Your task to perform on an android device: What's the weather going to be this weekend? Image 0: 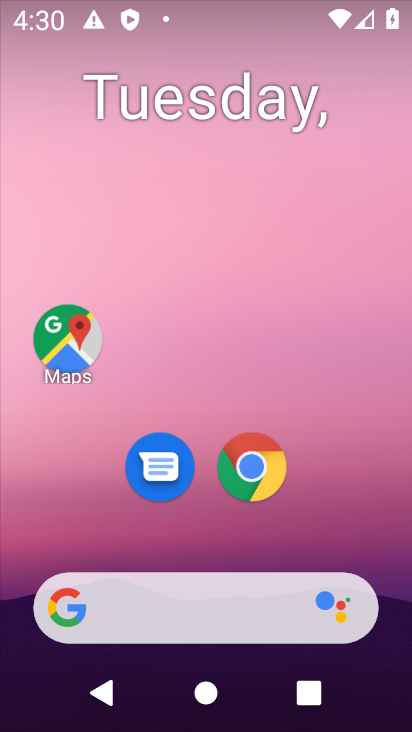
Step 0: drag from (155, 524) to (181, 7)
Your task to perform on an android device: What's the weather going to be this weekend? Image 1: 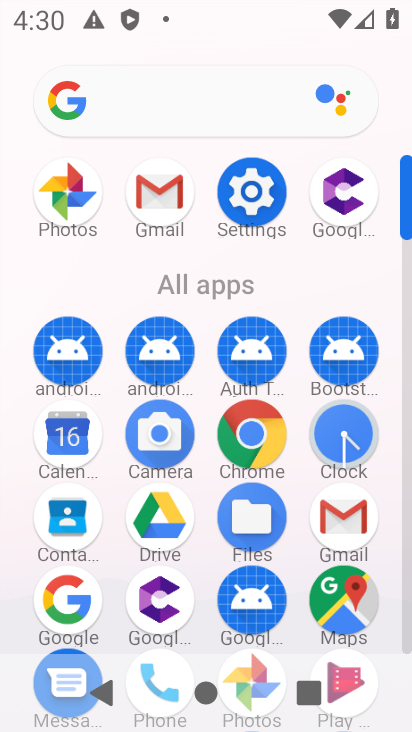
Step 1: click (61, 609)
Your task to perform on an android device: What's the weather going to be this weekend? Image 2: 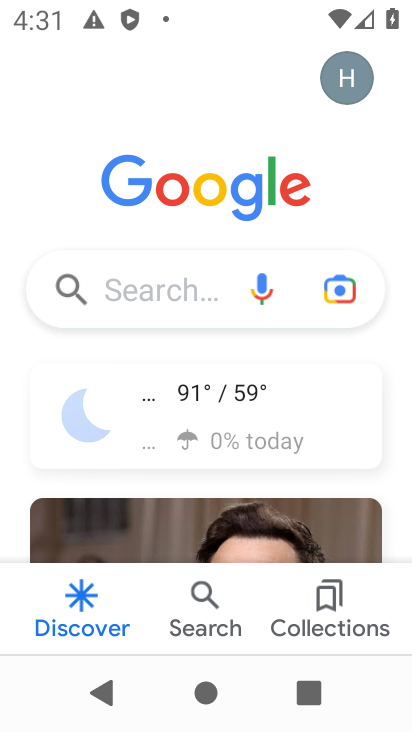
Step 2: click (211, 449)
Your task to perform on an android device: What's the weather going to be this weekend? Image 3: 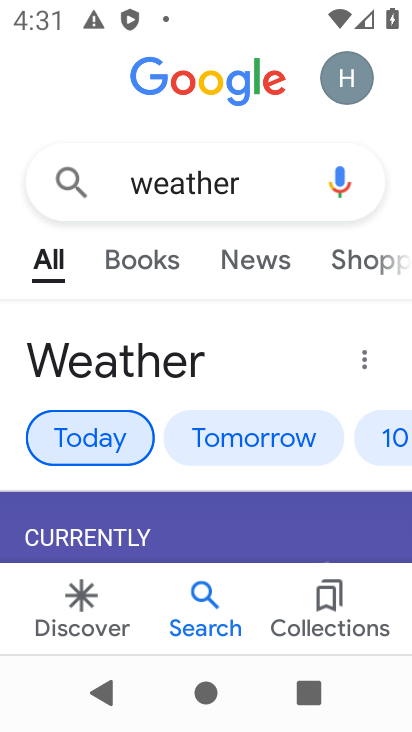
Step 3: click (371, 437)
Your task to perform on an android device: What's the weather going to be this weekend? Image 4: 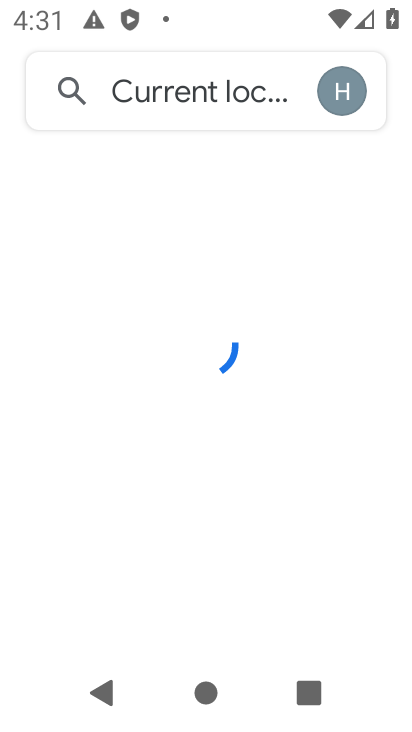
Step 4: click (386, 442)
Your task to perform on an android device: What's the weather going to be this weekend? Image 5: 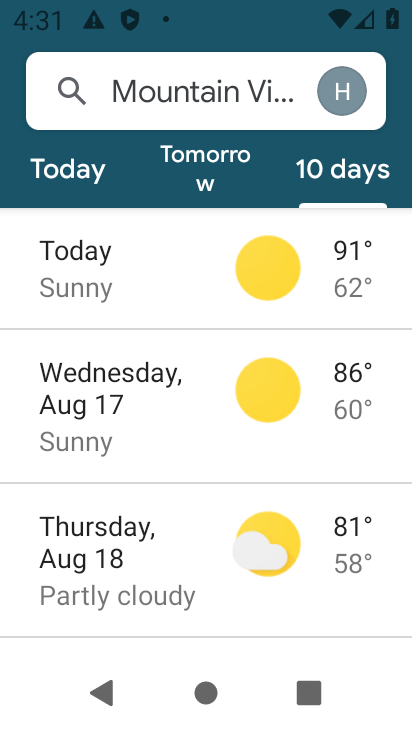
Step 5: task complete